Your task to perform on an android device: clear history in the chrome app Image 0: 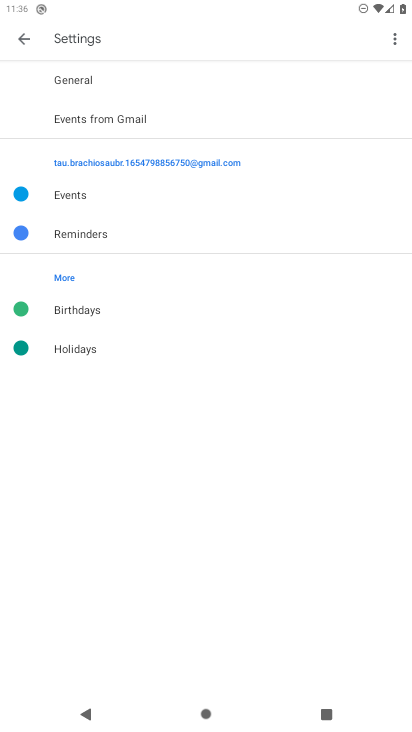
Step 0: drag from (326, 564) to (363, 362)
Your task to perform on an android device: clear history in the chrome app Image 1: 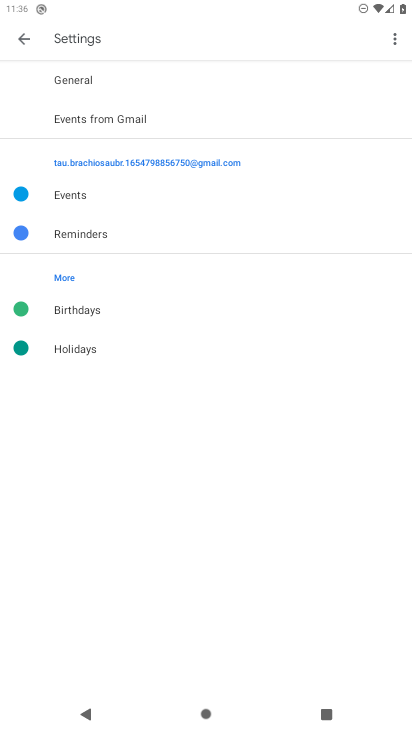
Step 1: press home button
Your task to perform on an android device: clear history in the chrome app Image 2: 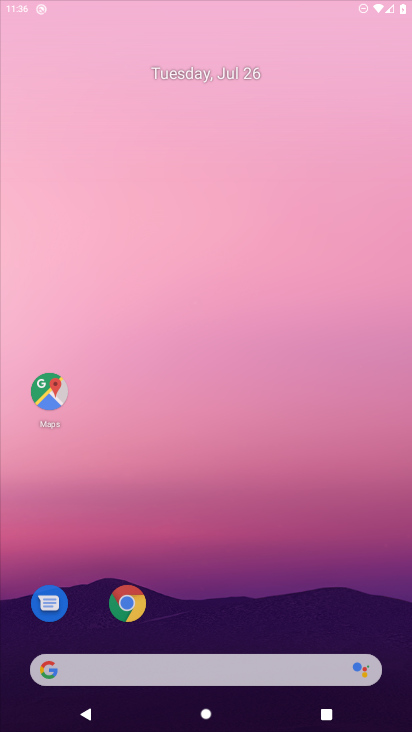
Step 2: drag from (193, 609) to (70, 3)
Your task to perform on an android device: clear history in the chrome app Image 3: 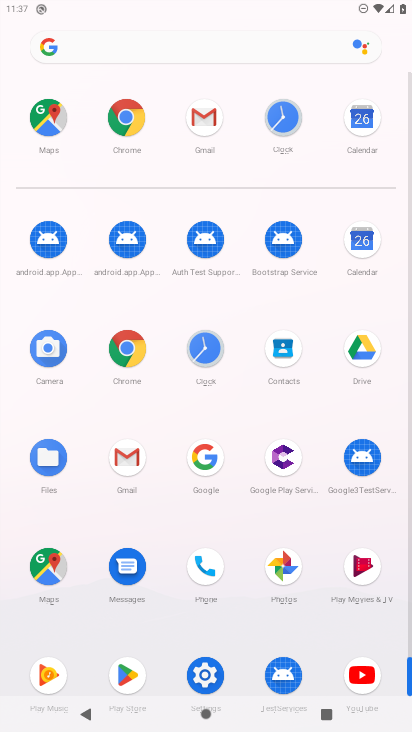
Step 3: click (126, 346)
Your task to perform on an android device: clear history in the chrome app Image 4: 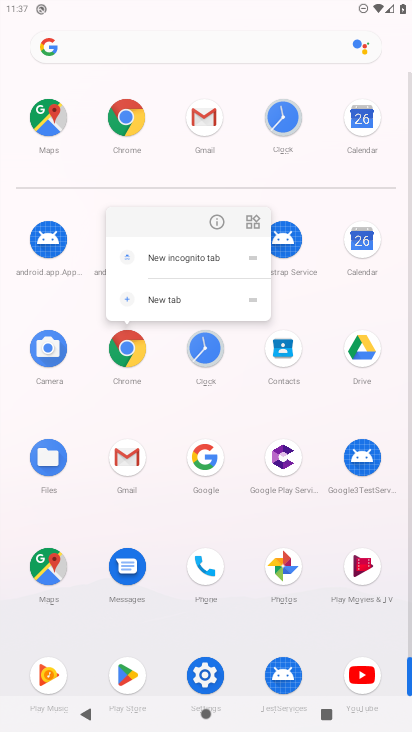
Step 4: click (221, 224)
Your task to perform on an android device: clear history in the chrome app Image 5: 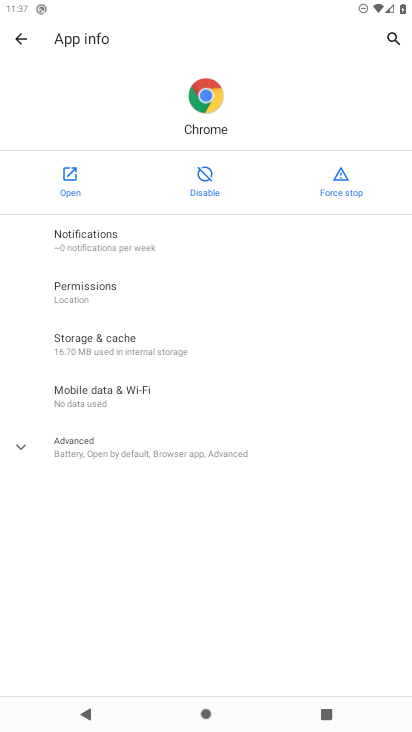
Step 5: click (67, 186)
Your task to perform on an android device: clear history in the chrome app Image 6: 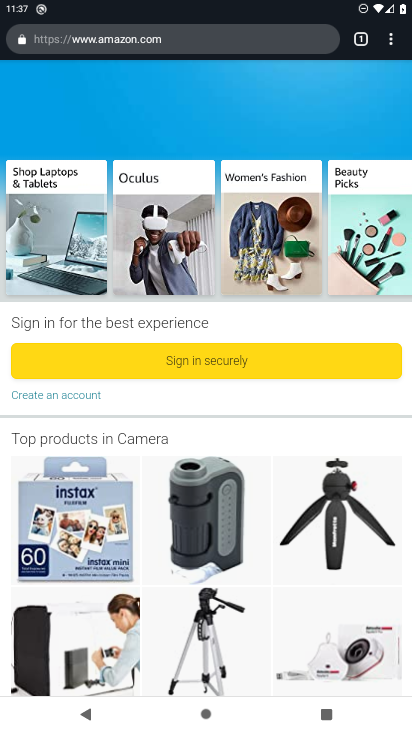
Step 6: drag from (239, 635) to (242, 712)
Your task to perform on an android device: clear history in the chrome app Image 7: 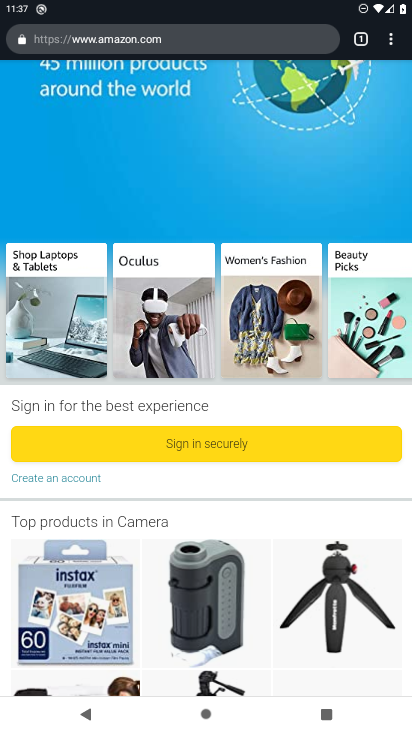
Step 7: drag from (393, 38) to (274, 224)
Your task to perform on an android device: clear history in the chrome app Image 8: 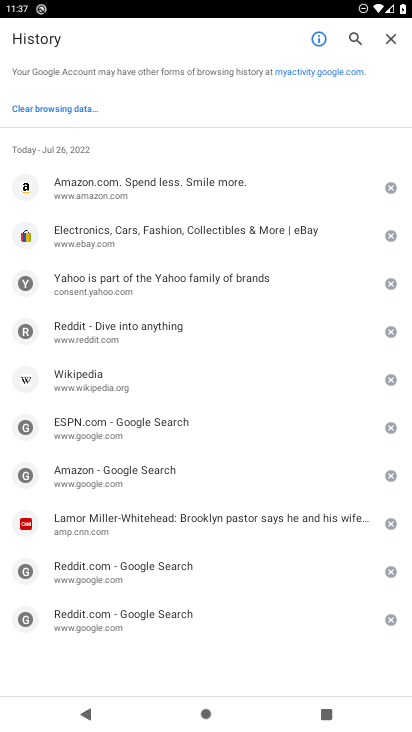
Step 8: drag from (215, 624) to (233, 428)
Your task to perform on an android device: clear history in the chrome app Image 9: 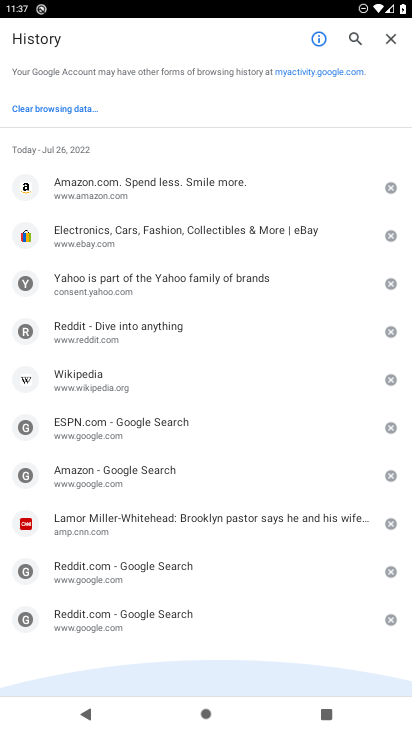
Step 9: drag from (151, 279) to (228, 727)
Your task to perform on an android device: clear history in the chrome app Image 10: 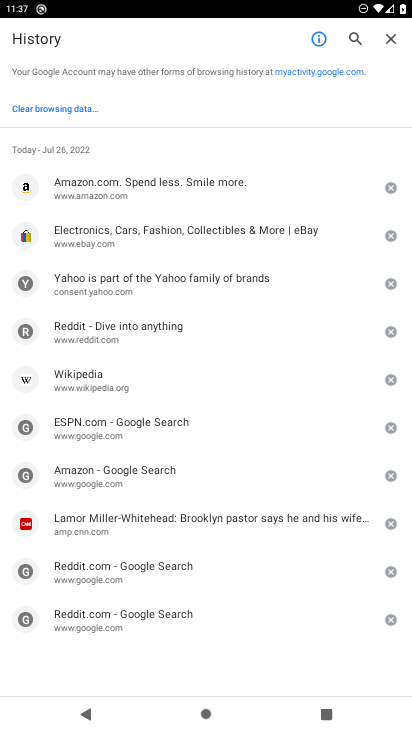
Step 10: click (27, 115)
Your task to perform on an android device: clear history in the chrome app Image 11: 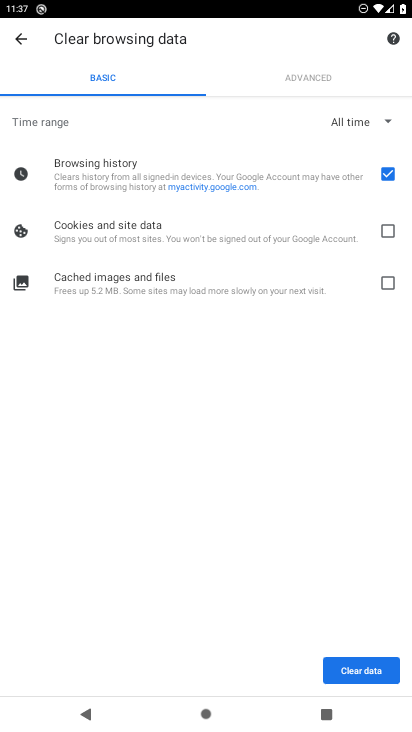
Step 11: click (379, 229)
Your task to perform on an android device: clear history in the chrome app Image 12: 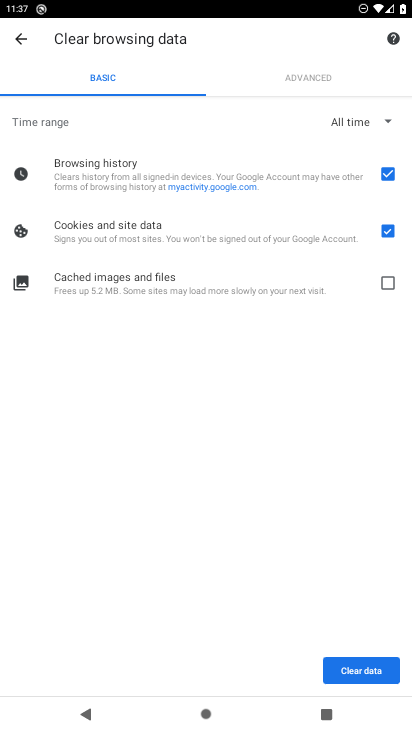
Step 12: click (356, 282)
Your task to perform on an android device: clear history in the chrome app Image 13: 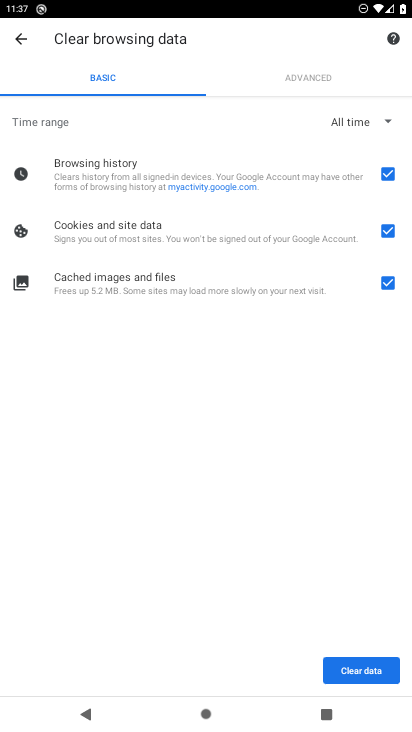
Step 13: click (345, 665)
Your task to perform on an android device: clear history in the chrome app Image 14: 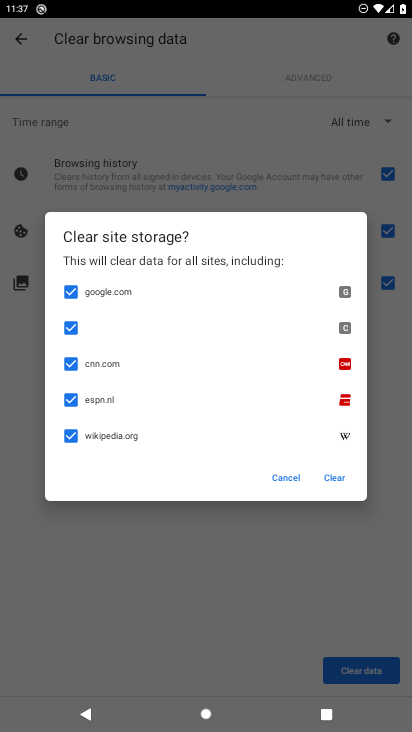
Step 14: click (335, 472)
Your task to perform on an android device: clear history in the chrome app Image 15: 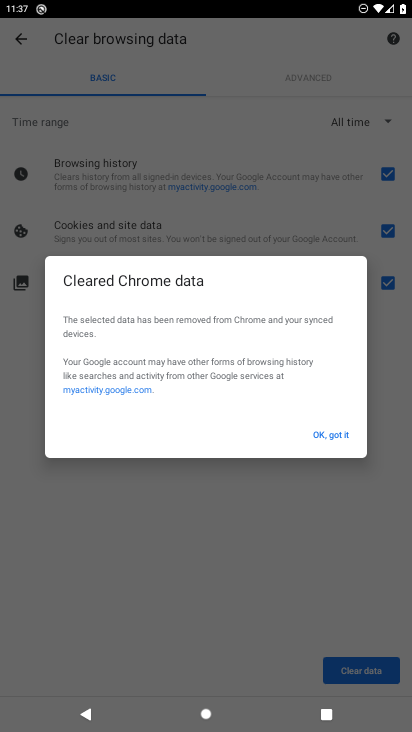
Step 15: task complete